Your task to perform on an android device: Go to Google maps Image 0: 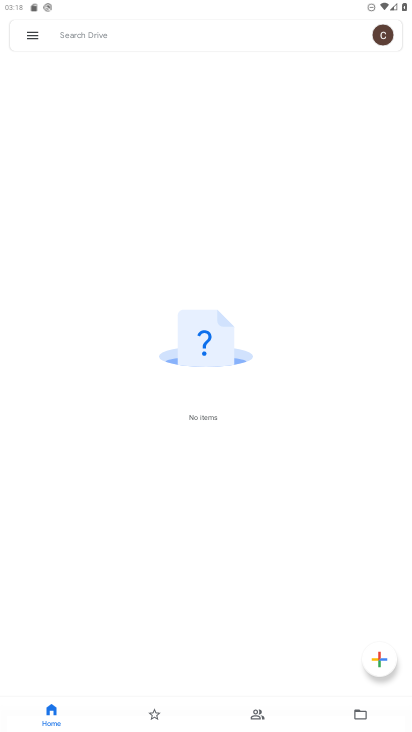
Step 0: press home button
Your task to perform on an android device: Go to Google maps Image 1: 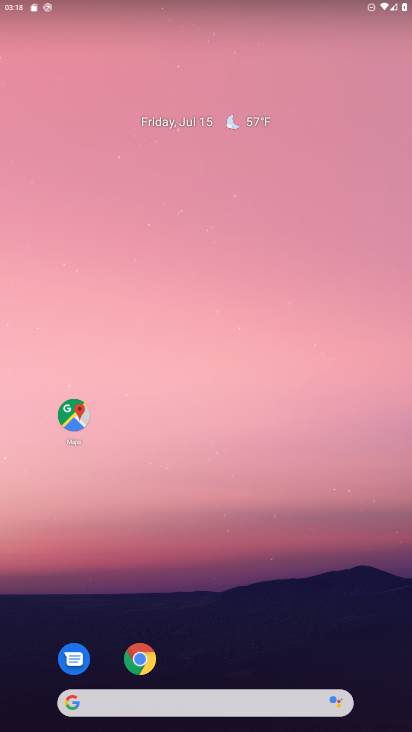
Step 1: click (72, 429)
Your task to perform on an android device: Go to Google maps Image 2: 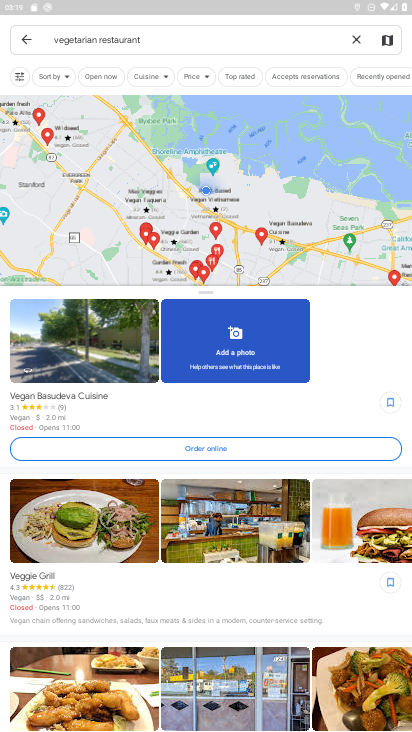
Step 2: task complete